Your task to perform on an android device: Open Chrome and go to settings Image 0: 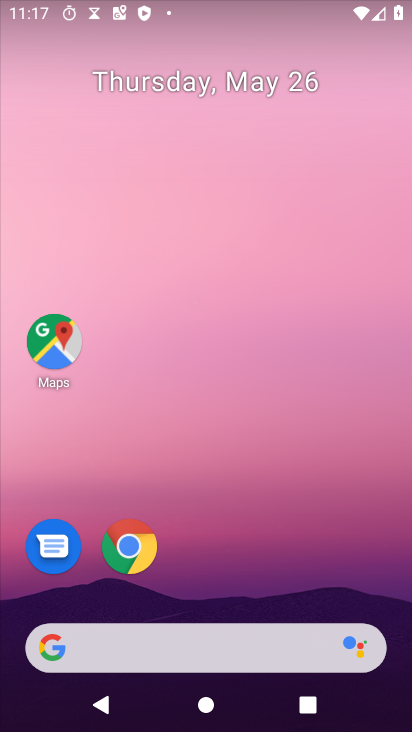
Step 0: drag from (378, 580) to (378, 149)
Your task to perform on an android device: Open Chrome and go to settings Image 1: 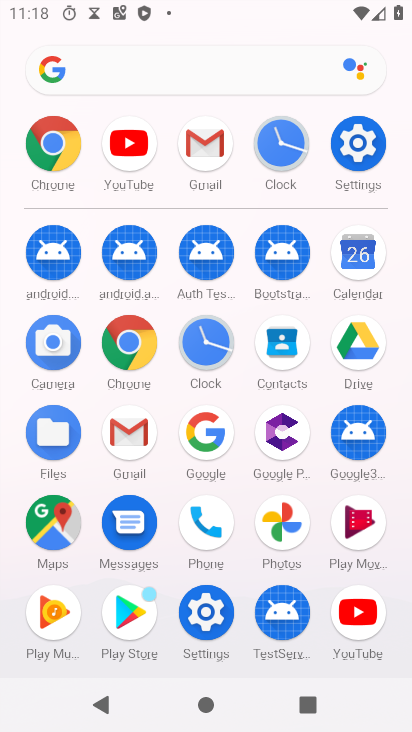
Step 1: click (133, 351)
Your task to perform on an android device: Open Chrome and go to settings Image 2: 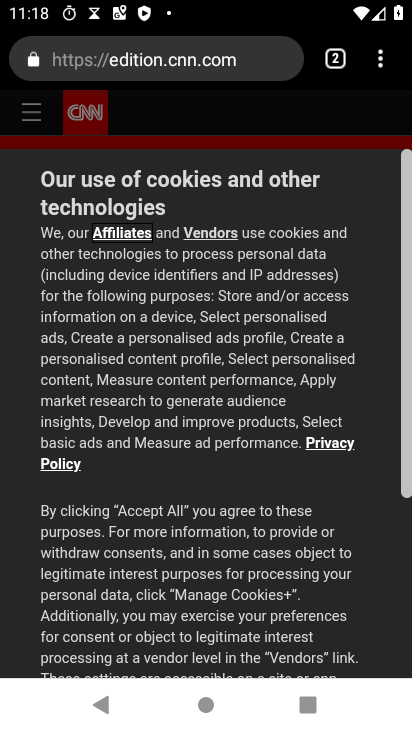
Step 2: task complete